Your task to perform on an android device: Go to settings Image 0: 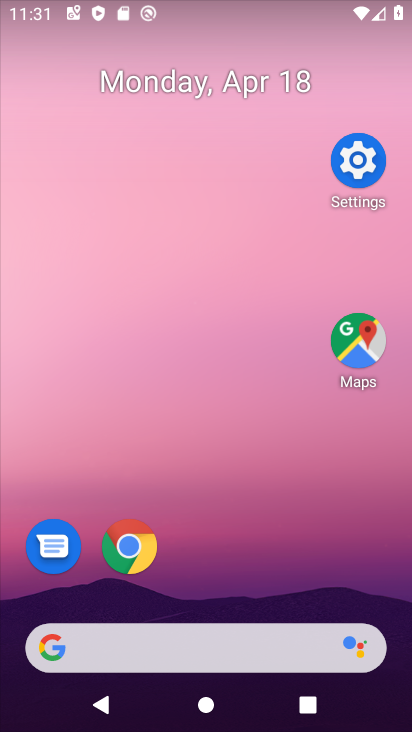
Step 0: click (367, 476)
Your task to perform on an android device: Go to settings Image 1: 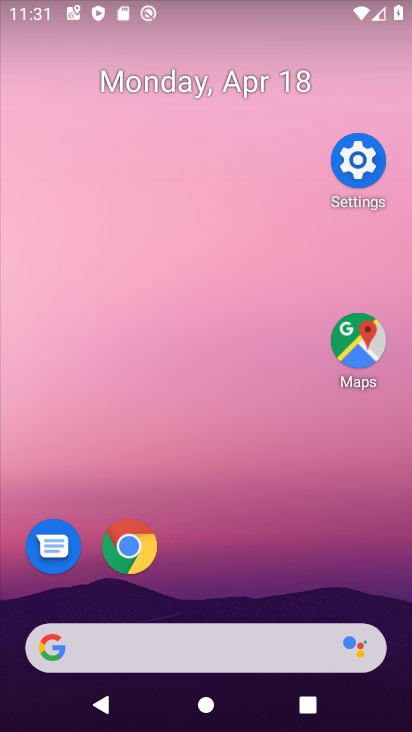
Step 1: drag from (302, 615) to (207, 120)
Your task to perform on an android device: Go to settings Image 2: 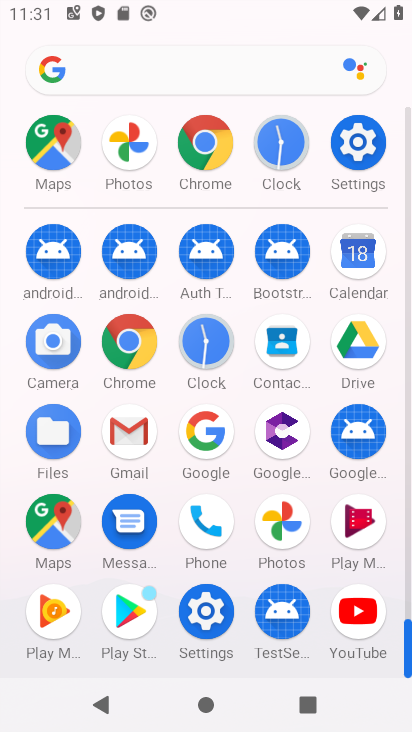
Step 2: click (358, 161)
Your task to perform on an android device: Go to settings Image 3: 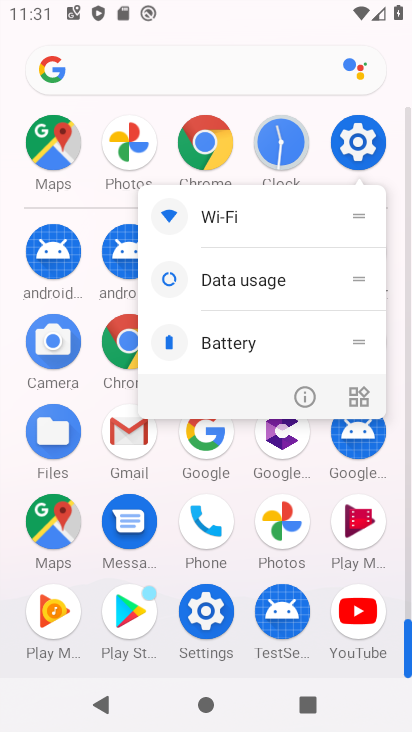
Step 3: click (361, 146)
Your task to perform on an android device: Go to settings Image 4: 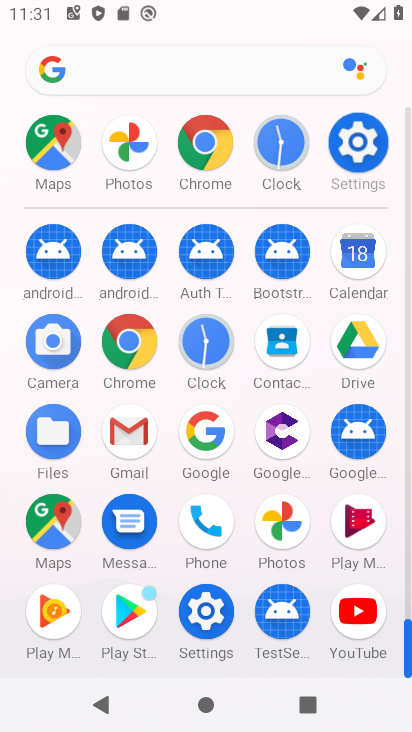
Step 4: click (361, 146)
Your task to perform on an android device: Go to settings Image 5: 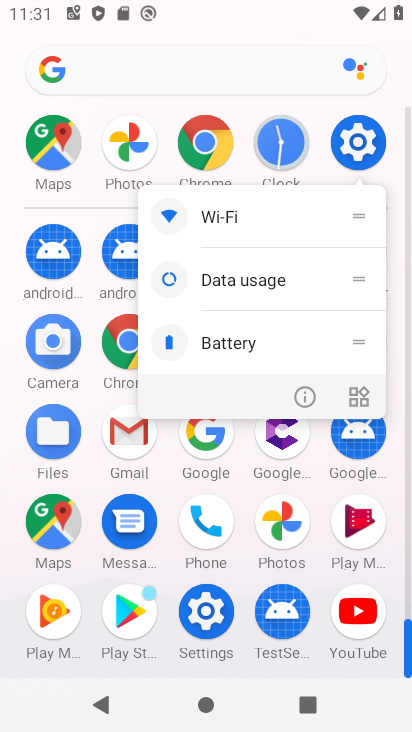
Step 5: click (356, 140)
Your task to perform on an android device: Go to settings Image 6: 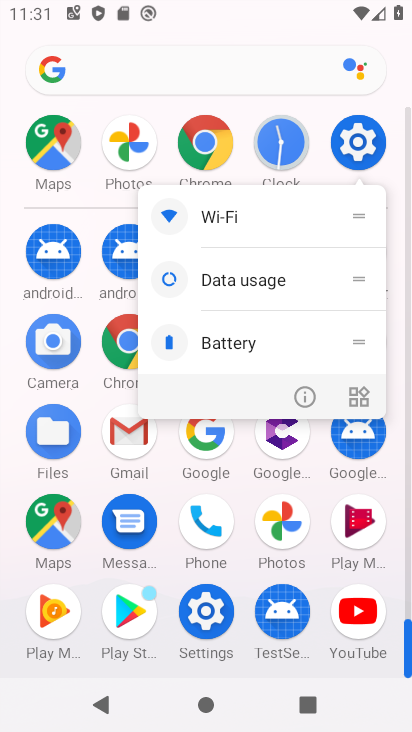
Step 6: click (356, 140)
Your task to perform on an android device: Go to settings Image 7: 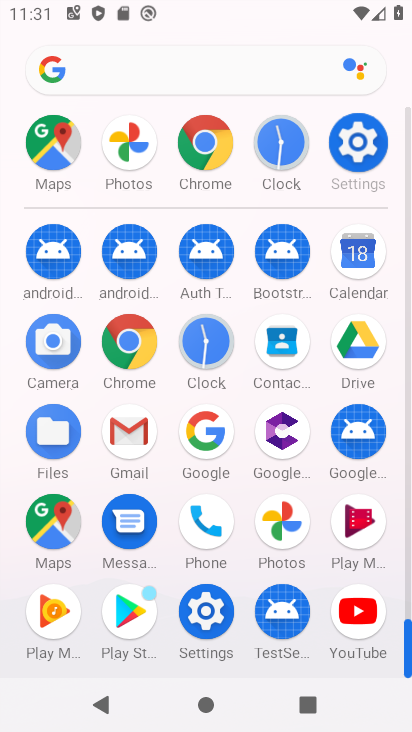
Step 7: drag from (355, 145) to (359, 183)
Your task to perform on an android device: Go to settings Image 8: 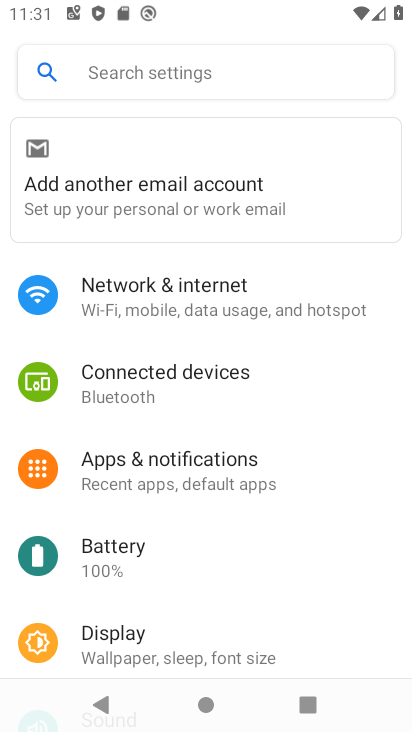
Step 8: click (356, 123)
Your task to perform on an android device: Go to settings Image 9: 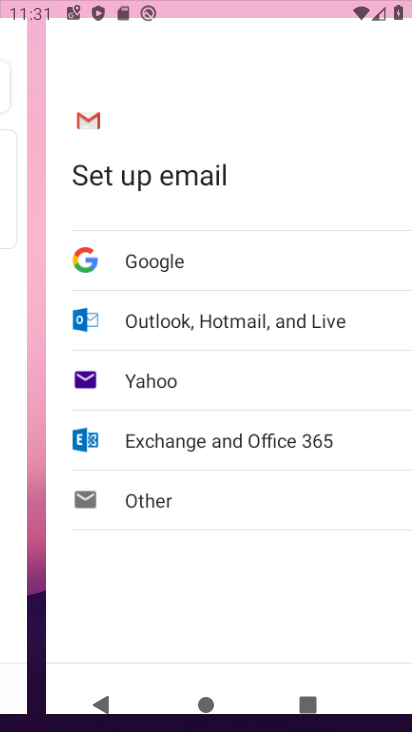
Step 9: click (351, 128)
Your task to perform on an android device: Go to settings Image 10: 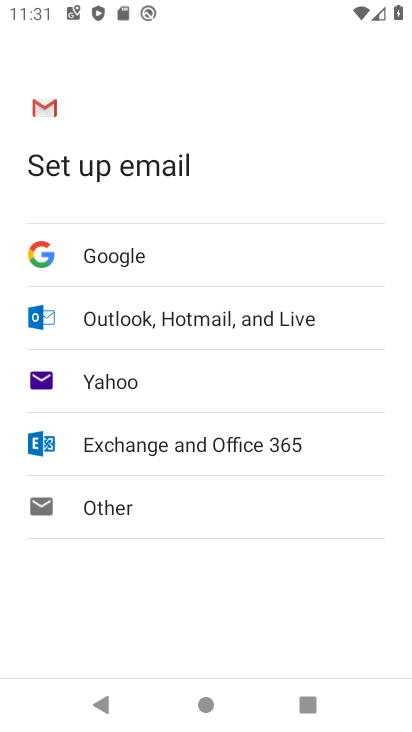
Step 10: task complete